Your task to perform on an android device: toggle sleep mode Image 0: 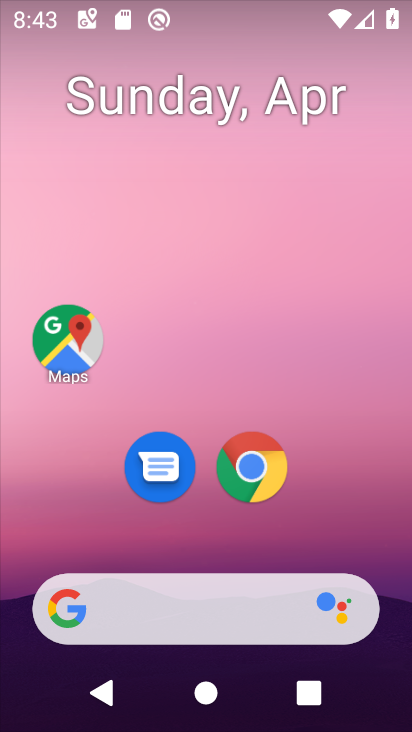
Step 0: drag from (352, 541) to (381, 33)
Your task to perform on an android device: toggle sleep mode Image 1: 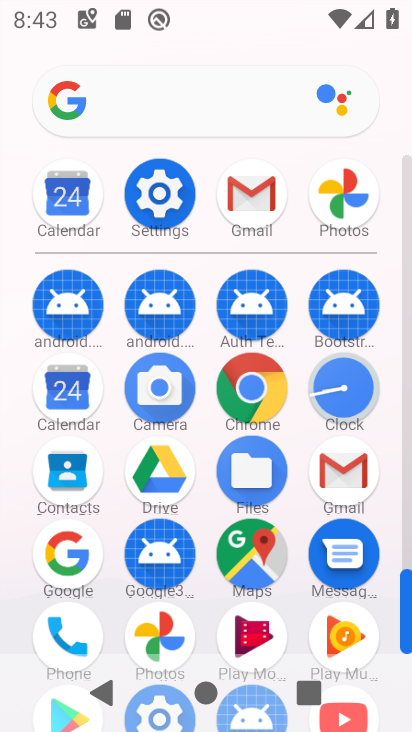
Step 1: click (170, 201)
Your task to perform on an android device: toggle sleep mode Image 2: 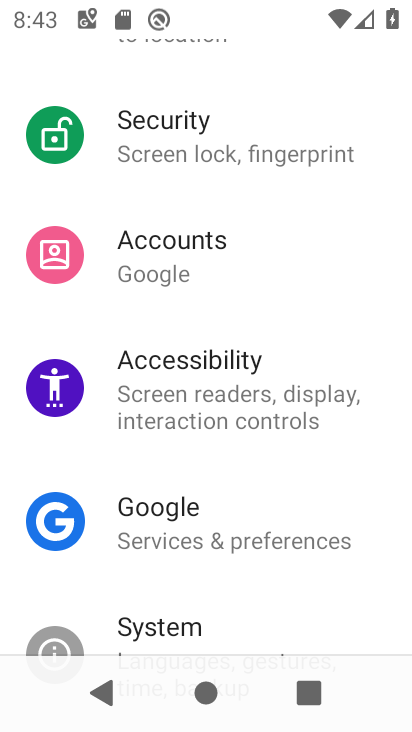
Step 2: drag from (220, 421) to (273, 134)
Your task to perform on an android device: toggle sleep mode Image 3: 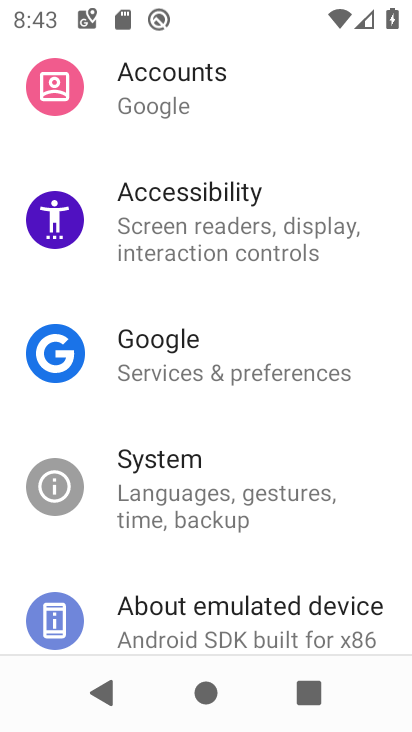
Step 3: drag from (244, 511) to (289, 329)
Your task to perform on an android device: toggle sleep mode Image 4: 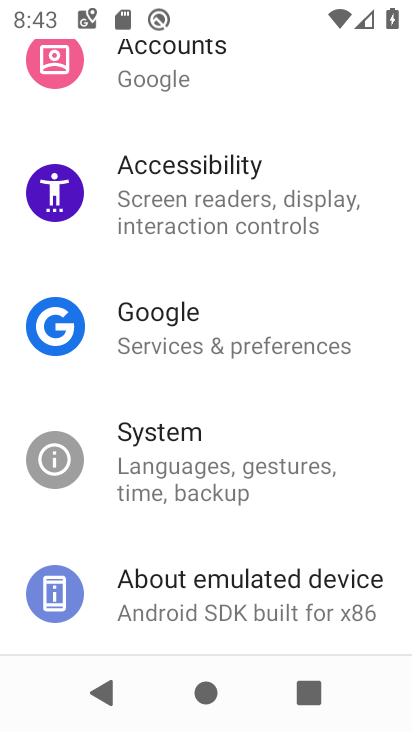
Step 4: drag from (289, 328) to (298, 431)
Your task to perform on an android device: toggle sleep mode Image 5: 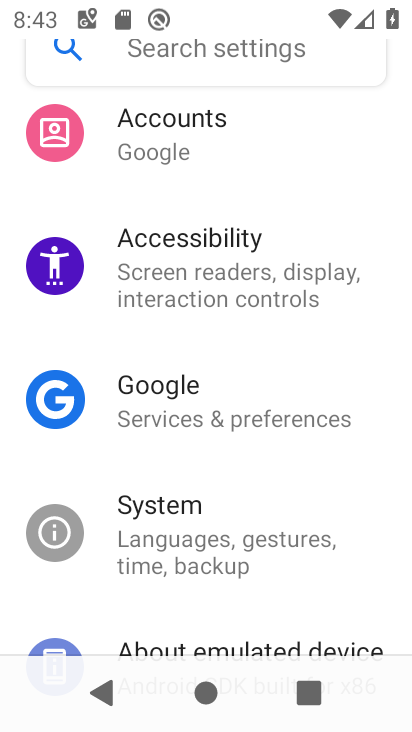
Step 5: drag from (299, 311) to (292, 390)
Your task to perform on an android device: toggle sleep mode Image 6: 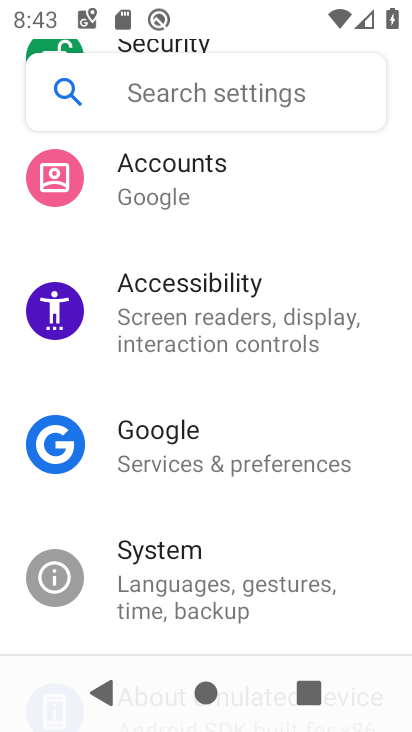
Step 6: drag from (284, 271) to (276, 333)
Your task to perform on an android device: toggle sleep mode Image 7: 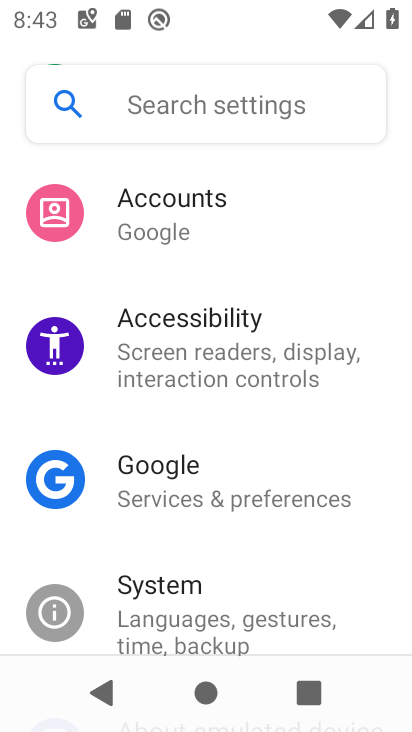
Step 7: drag from (271, 257) to (266, 306)
Your task to perform on an android device: toggle sleep mode Image 8: 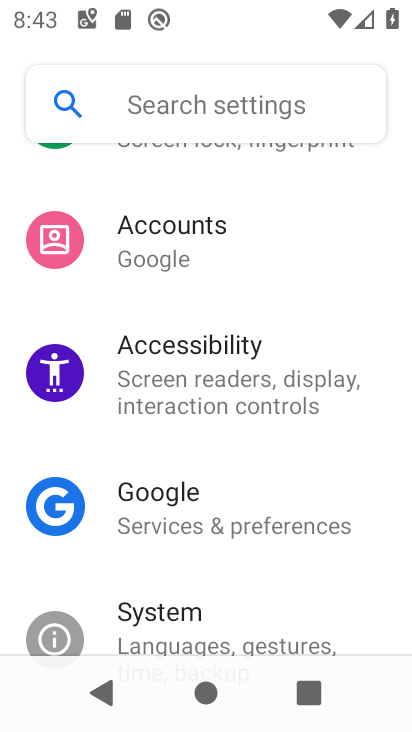
Step 8: drag from (257, 264) to (256, 341)
Your task to perform on an android device: toggle sleep mode Image 9: 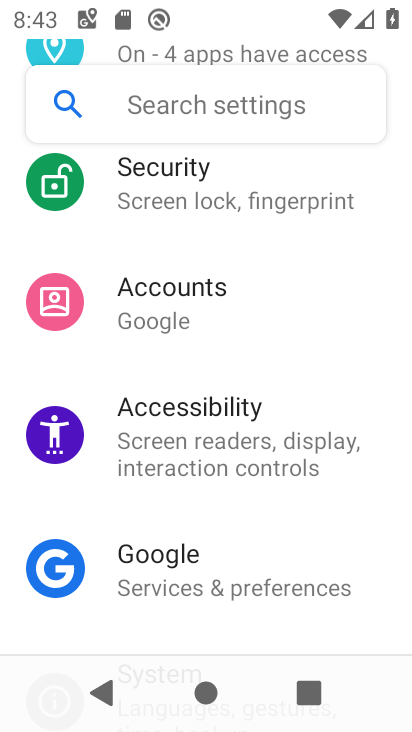
Step 9: drag from (251, 255) to (253, 304)
Your task to perform on an android device: toggle sleep mode Image 10: 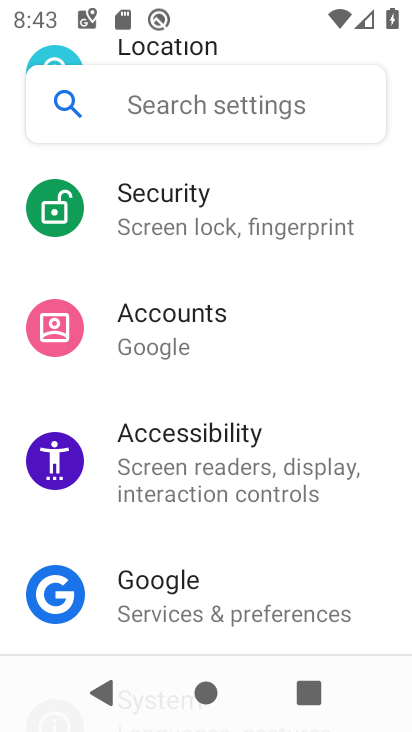
Step 10: drag from (256, 263) to (262, 330)
Your task to perform on an android device: toggle sleep mode Image 11: 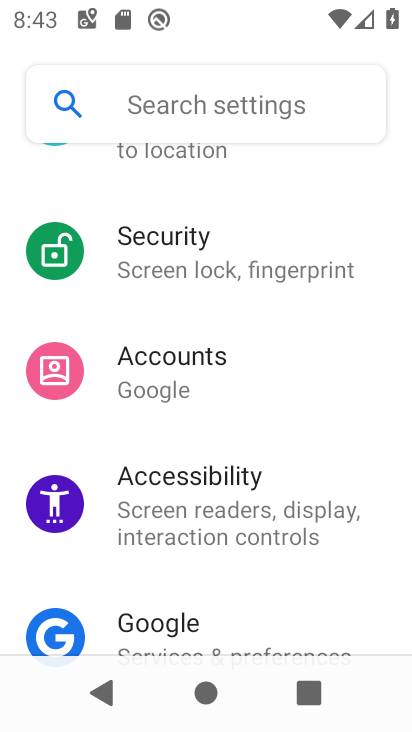
Step 11: drag from (258, 263) to (261, 327)
Your task to perform on an android device: toggle sleep mode Image 12: 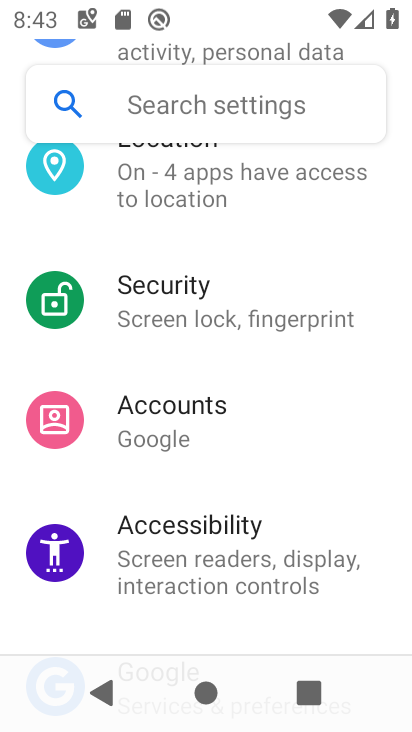
Step 12: drag from (253, 276) to (259, 311)
Your task to perform on an android device: toggle sleep mode Image 13: 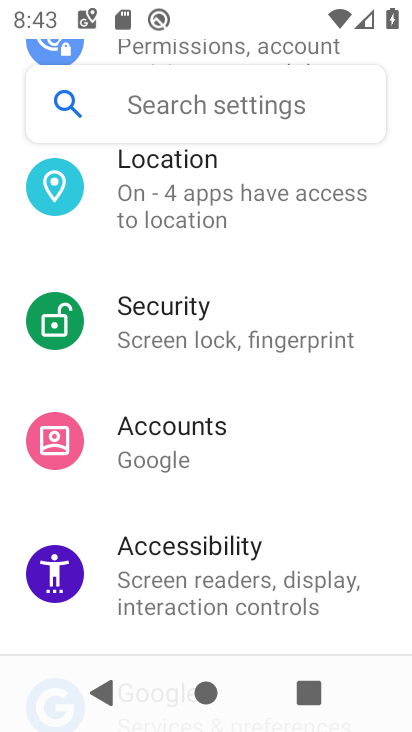
Step 13: drag from (264, 267) to (257, 334)
Your task to perform on an android device: toggle sleep mode Image 14: 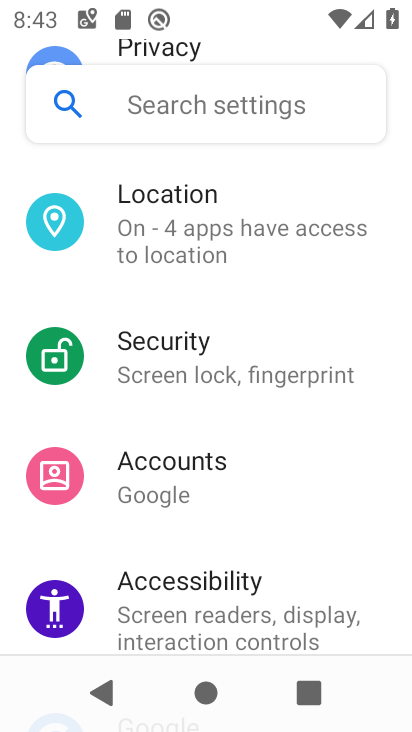
Step 14: drag from (237, 237) to (237, 291)
Your task to perform on an android device: toggle sleep mode Image 15: 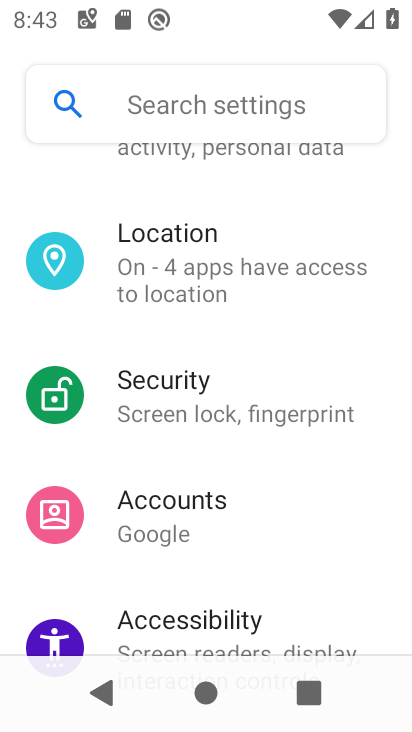
Step 15: drag from (234, 236) to (234, 285)
Your task to perform on an android device: toggle sleep mode Image 16: 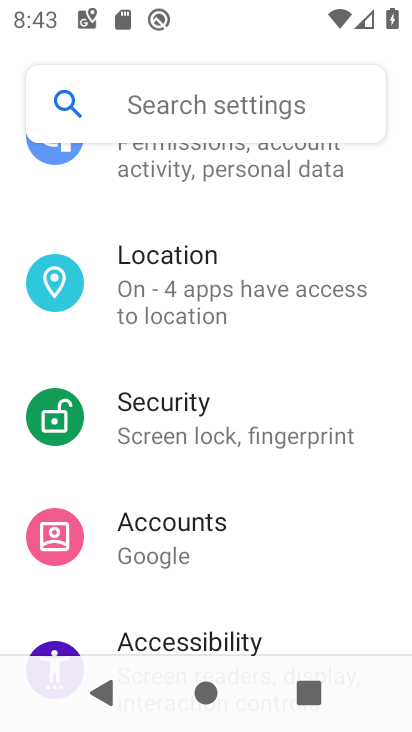
Step 16: drag from (228, 259) to (231, 315)
Your task to perform on an android device: toggle sleep mode Image 17: 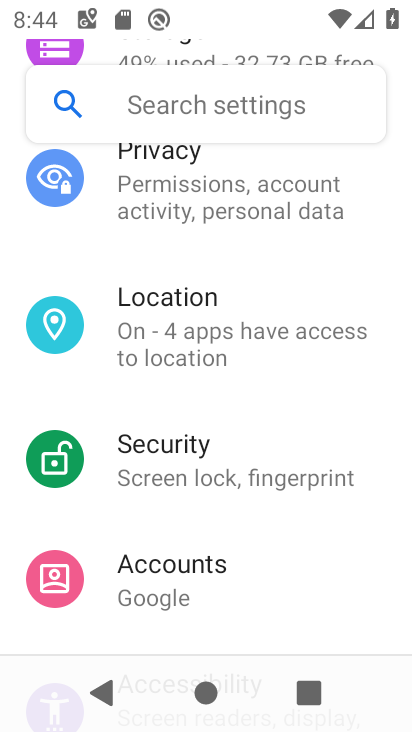
Step 17: drag from (234, 242) to (238, 325)
Your task to perform on an android device: toggle sleep mode Image 18: 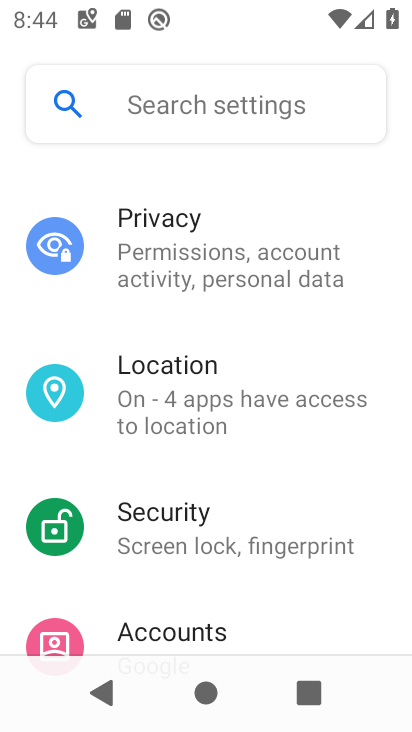
Step 18: drag from (231, 294) to (241, 360)
Your task to perform on an android device: toggle sleep mode Image 19: 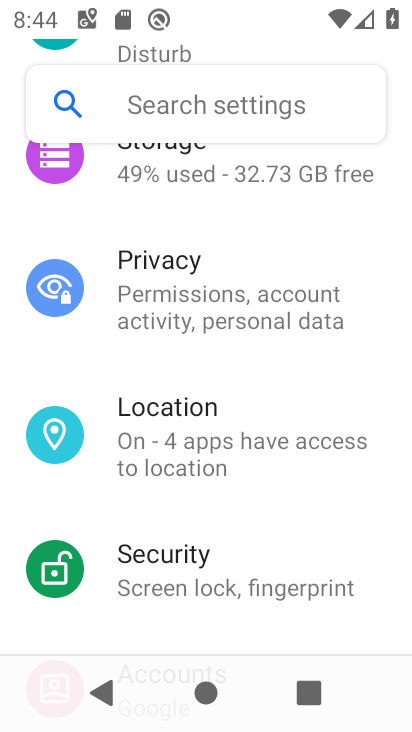
Step 19: drag from (237, 302) to (246, 358)
Your task to perform on an android device: toggle sleep mode Image 20: 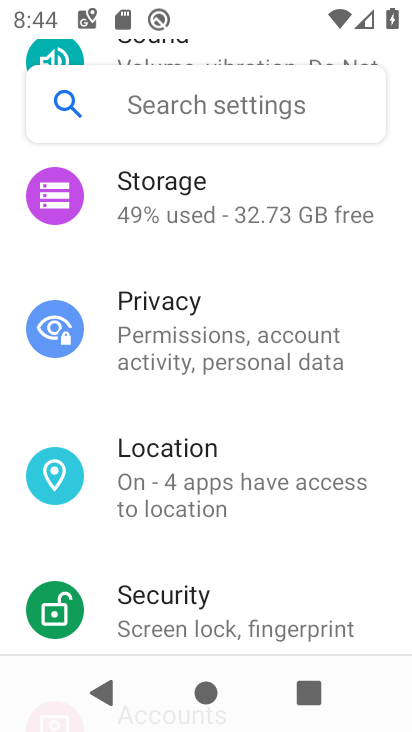
Step 20: drag from (235, 310) to (249, 355)
Your task to perform on an android device: toggle sleep mode Image 21: 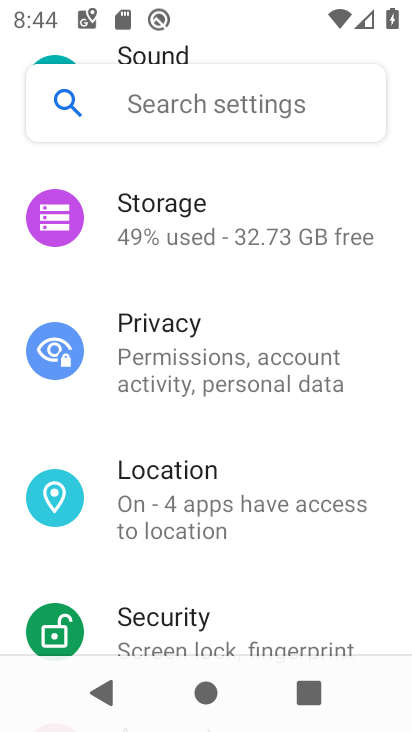
Step 21: drag from (240, 286) to (261, 353)
Your task to perform on an android device: toggle sleep mode Image 22: 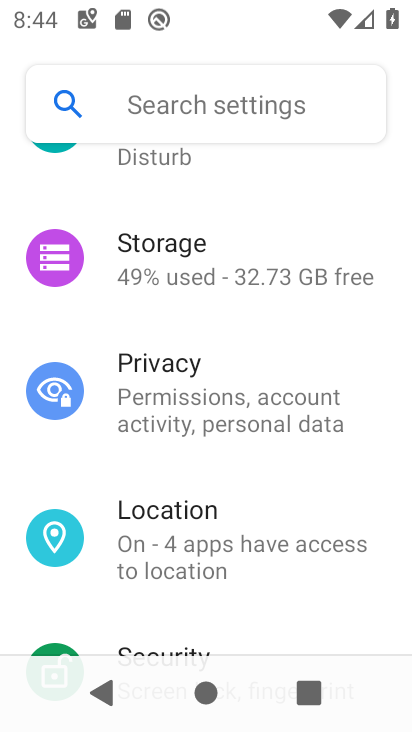
Step 22: drag from (247, 288) to (258, 353)
Your task to perform on an android device: toggle sleep mode Image 23: 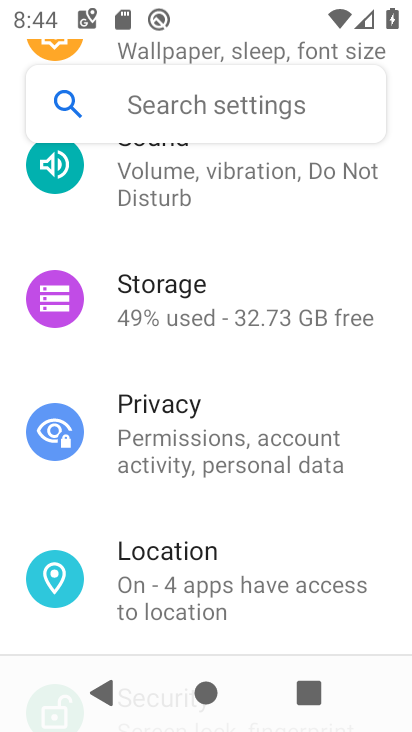
Step 23: drag from (253, 290) to (256, 360)
Your task to perform on an android device: toggle sleep mode Image 24: 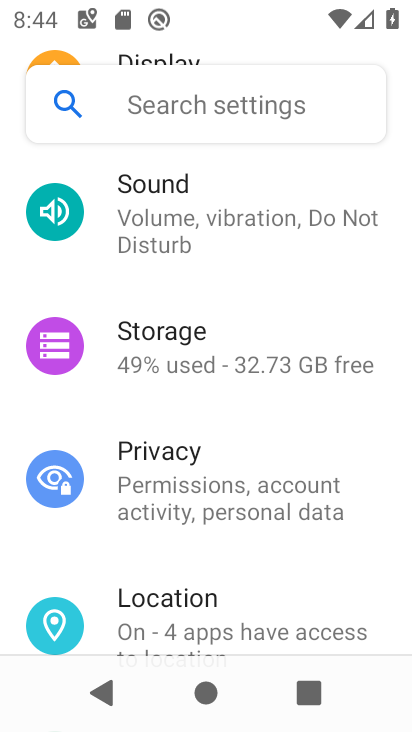
Step 24: drag from (239, 294) to (239, 380)
Your task to perform on an android device: toggle sleep mode Image 25: 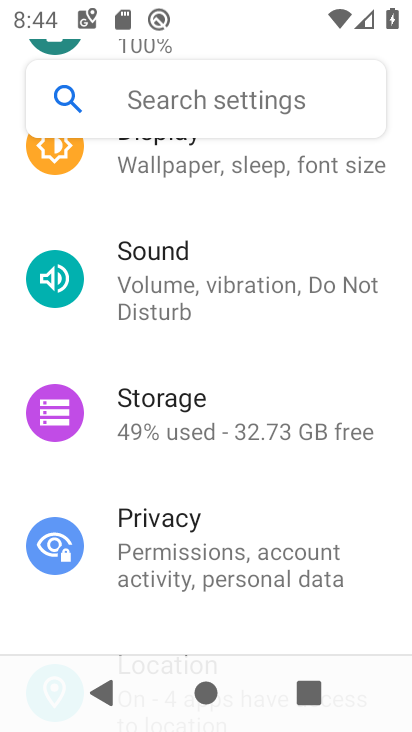
Step 25: drag from (221, 286) to (235, 355)
Your task to perform on an android device: toggle sleep mode Image 26: 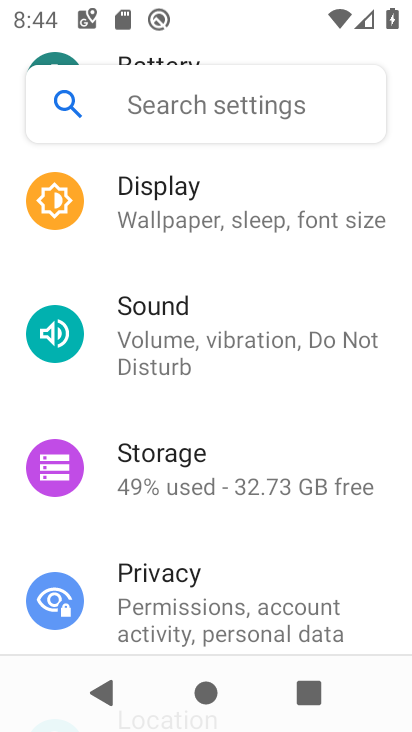
Step 26: drag from (222, 290) to (232, 352)
Your task to perform on an android device: toggle sleep mode Image 27: 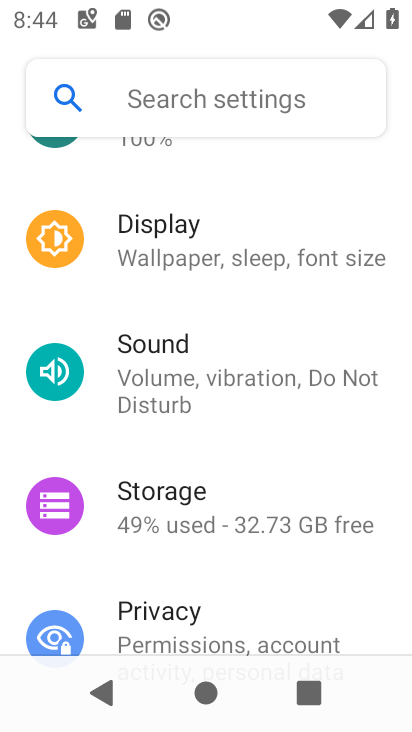
Step 27: drag from (214, 266) to (197, 396)
Your task to perform on an android device: toggle sleep mode Image 28: 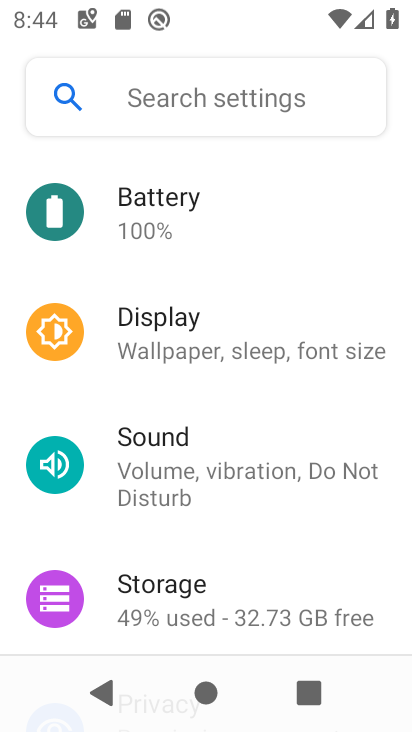
Step 28: drag from (186, 332) to (174, 408)
Your task to perform on an android device: toggle sleep mode Image 29: 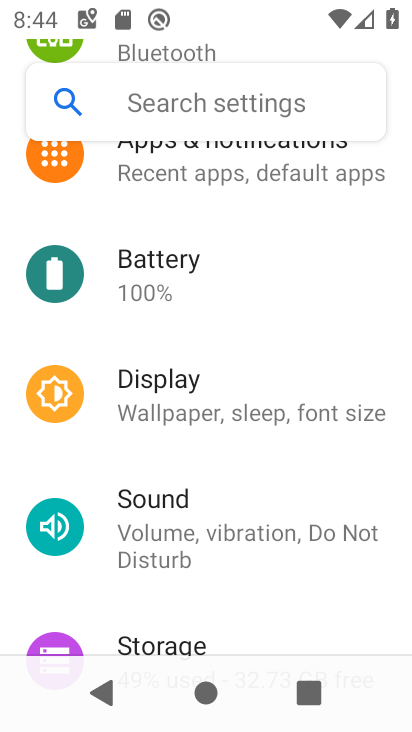
Step 29: drag from (193, 297) to (144, 571)
Your task to perform on an android device: toggle sleep mode Image 30: 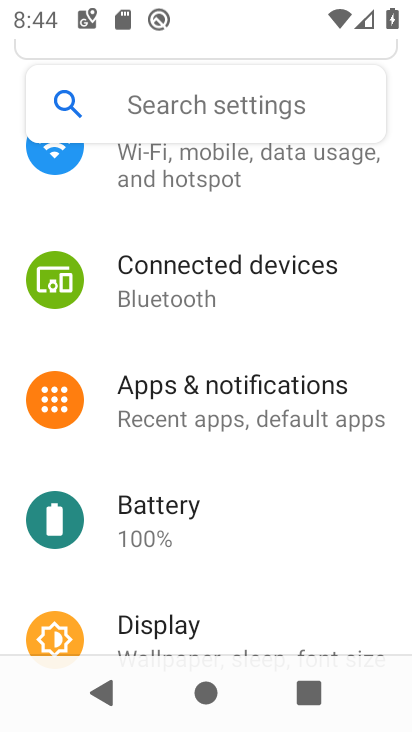
Step 30: click (173, 625)
Your task to perform on an android device: toggle sleep mode Image 31: 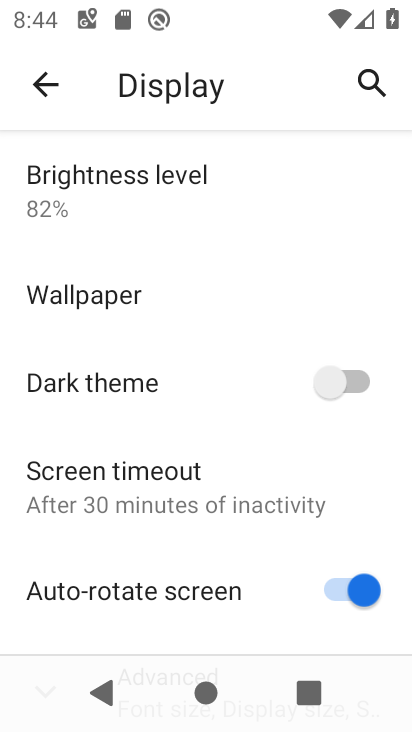
Step 31: drag from (202, 602) to (219, 444)
Your task to perform on an android device: toggle sleep mode Image 32: 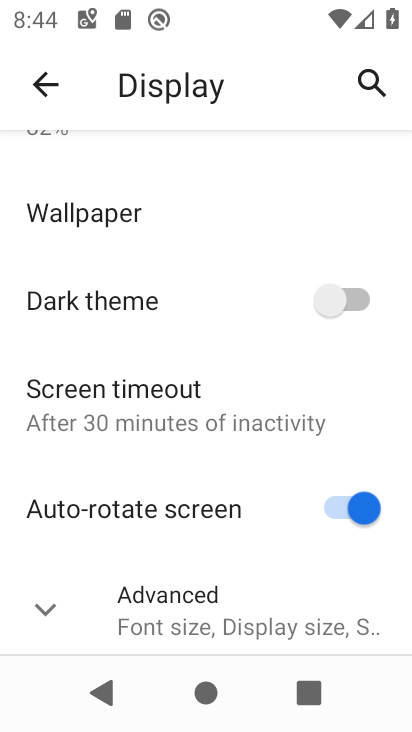
Step 32: drag from (250, 561) to (255, 312)
Your task to perform on an android device: toggle sleep mode Image 33: 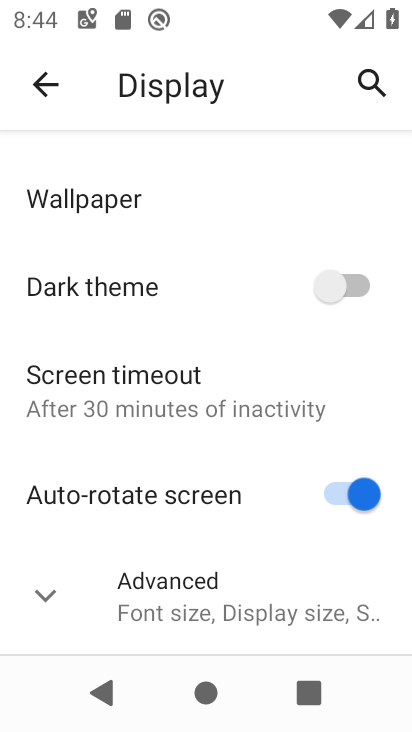
Step 33: click (156, 613)
Your task to perform on an android device: toggle sleep mode Image 34: 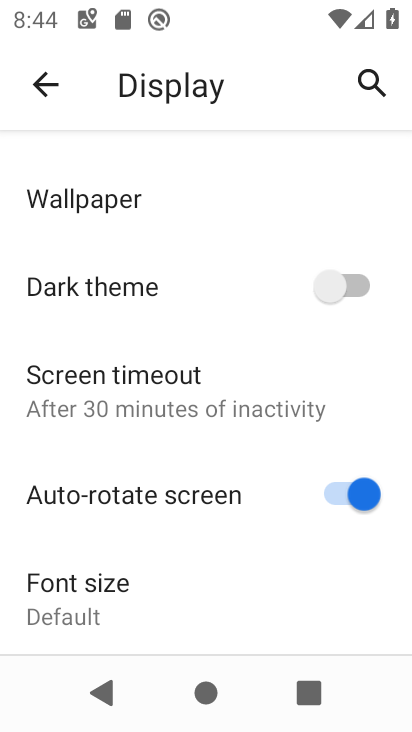
Step 34: task complete